Your task to perform on an android device: When is my next appointment? Image 0: 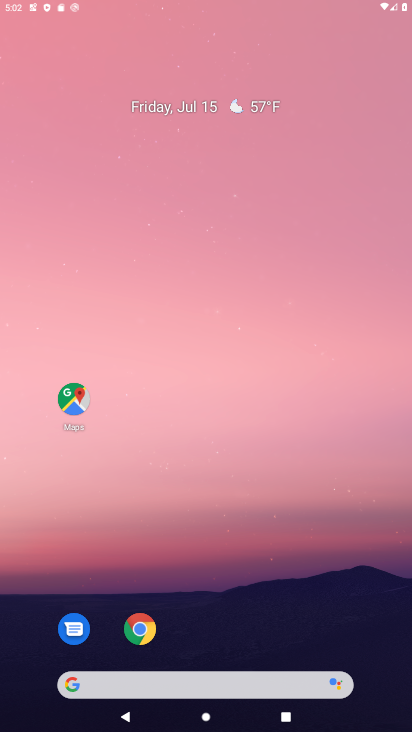
Step 0: press home button
Your task to perform on an android device: When is my next appointment? Image 1: 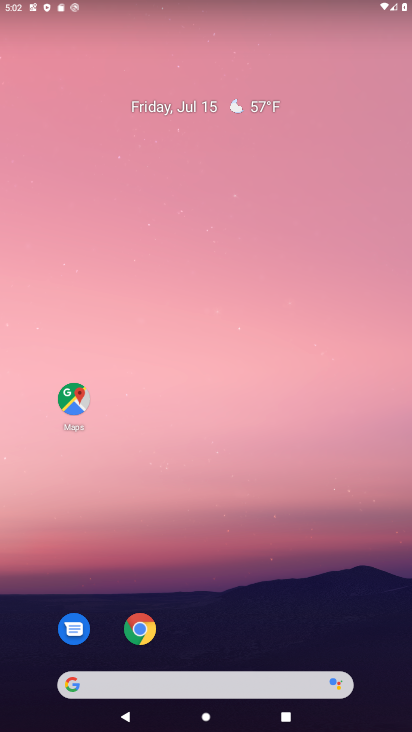
Step 1: drag from (257, 606) to (280, 58)
Your task to perform on an android device: When is my next appointment? Image 2: 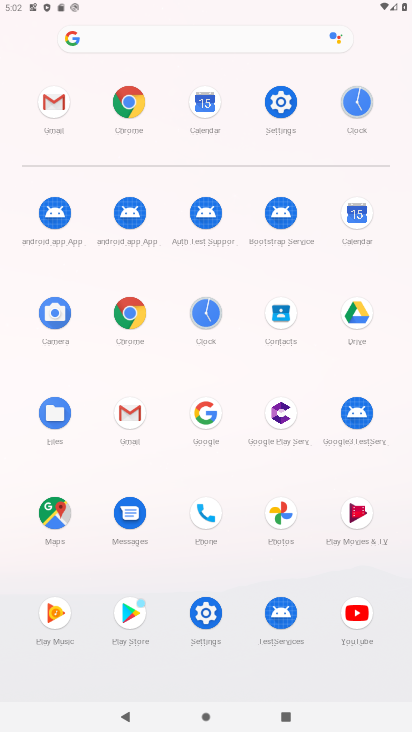
Step 2: click (356, 219)
Your task to perform on an android device: When is my next appointment? Image 3: 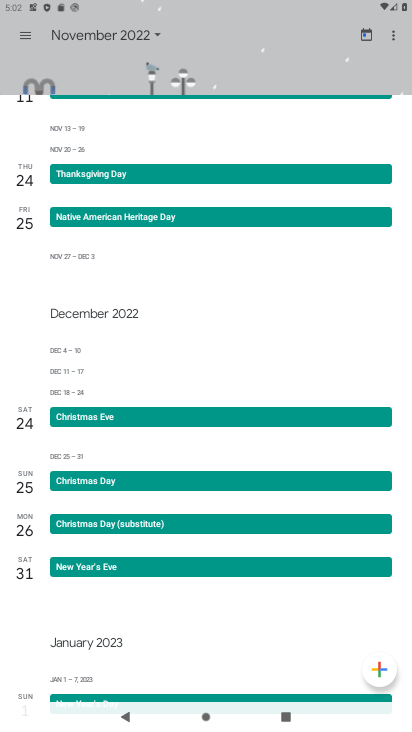
Step 3: click (25, 34)
Your task to perform on an android device: When is my next appointment? Image 4: 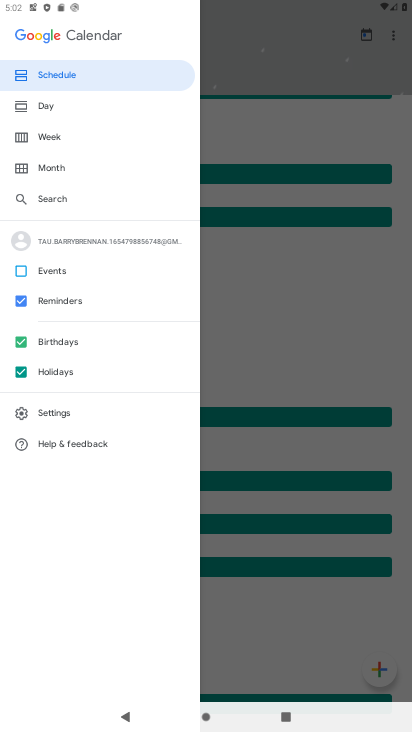
Step 4: click (36, 67)
Your task to perform on an android device: When is my next appointment? Image 5: 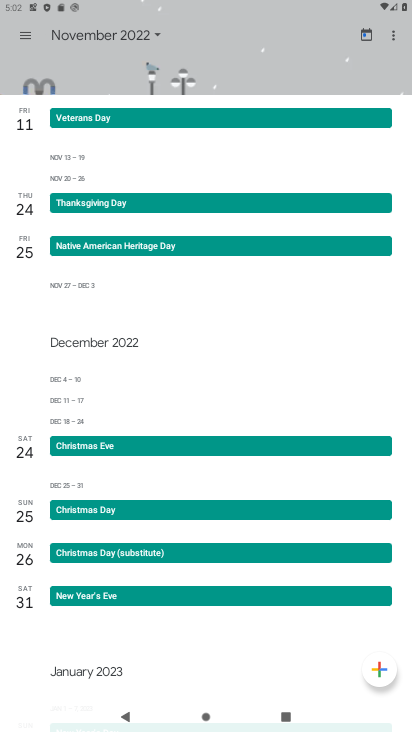
Step 5: task complete